Your task to perform on an android device: Open network settings Image 0: 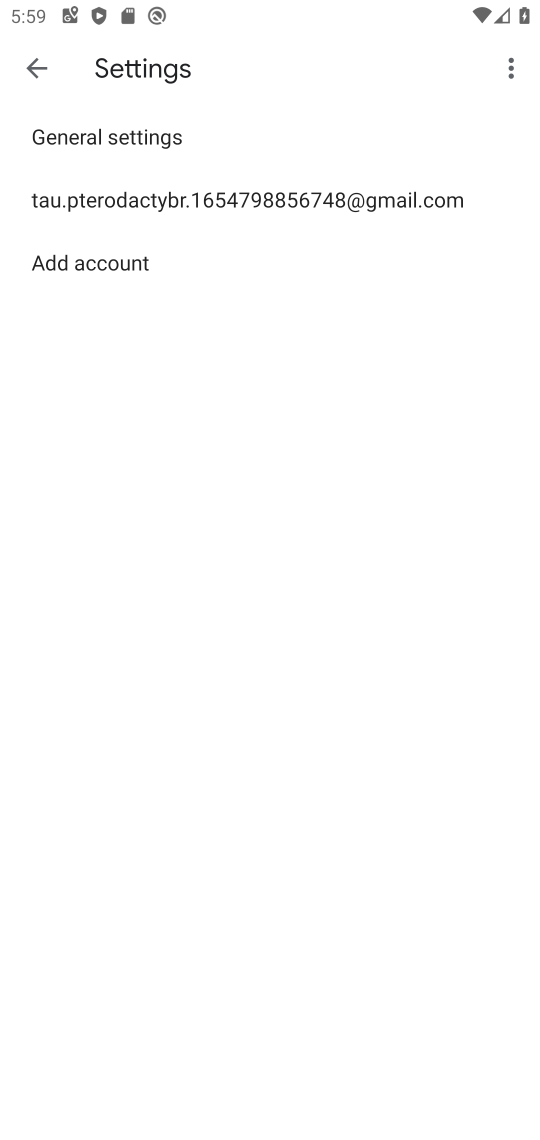
Step 0: press home button
Your task to perform on an android device: Open network settings Image 1: 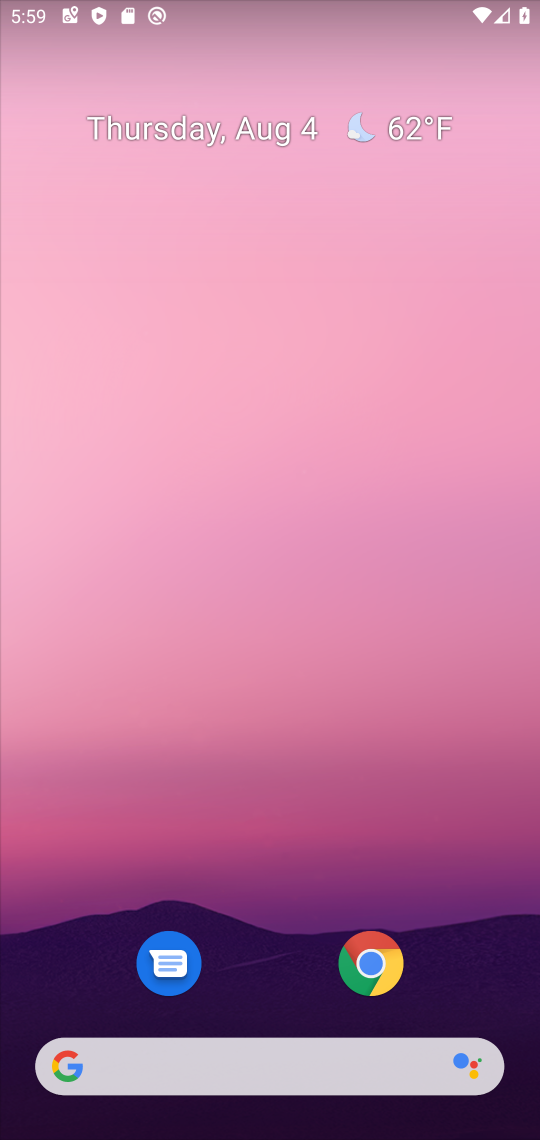
Step 1: drag from (298, 881) to (226, 12)
Your task to perform on an android device: Open network settings Image 2: 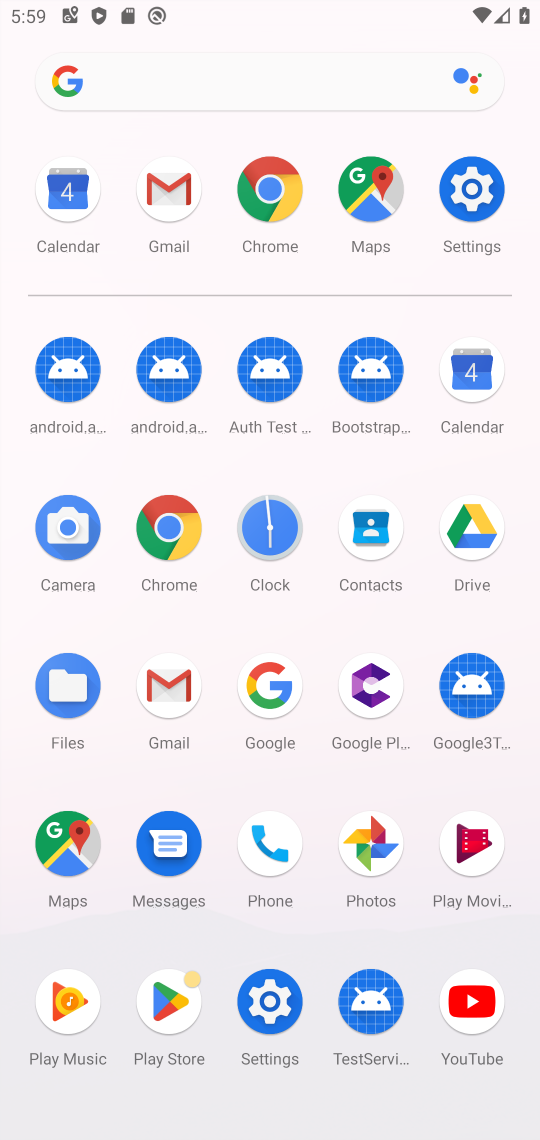
Step 2: click (470, 195)
Your task to perform on an android device: Open network settings Image 3: 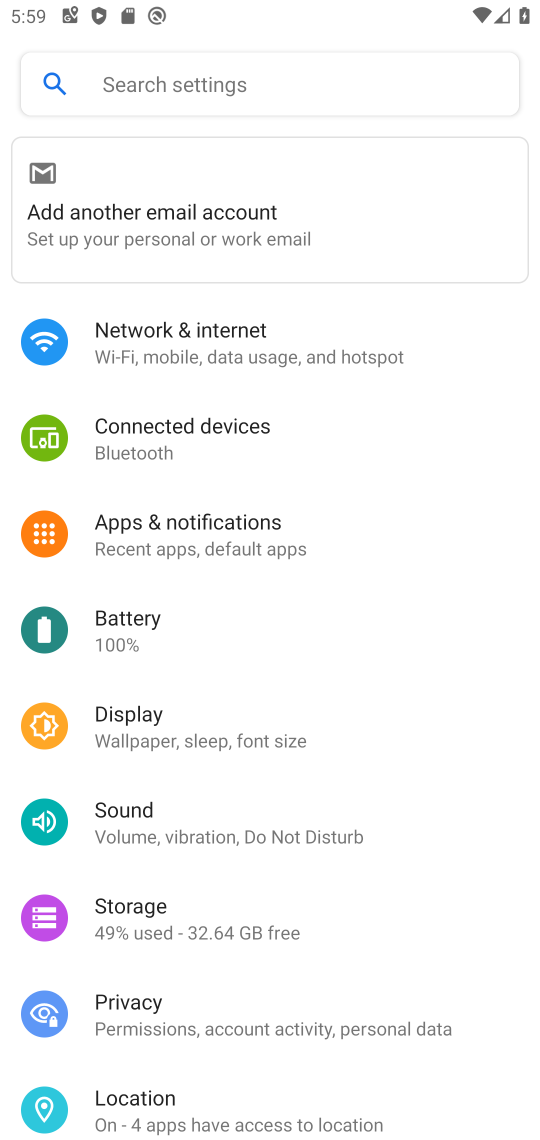
Step 3: click (182, 322)
Your task to perform on an android device: Open network settings Image 4: 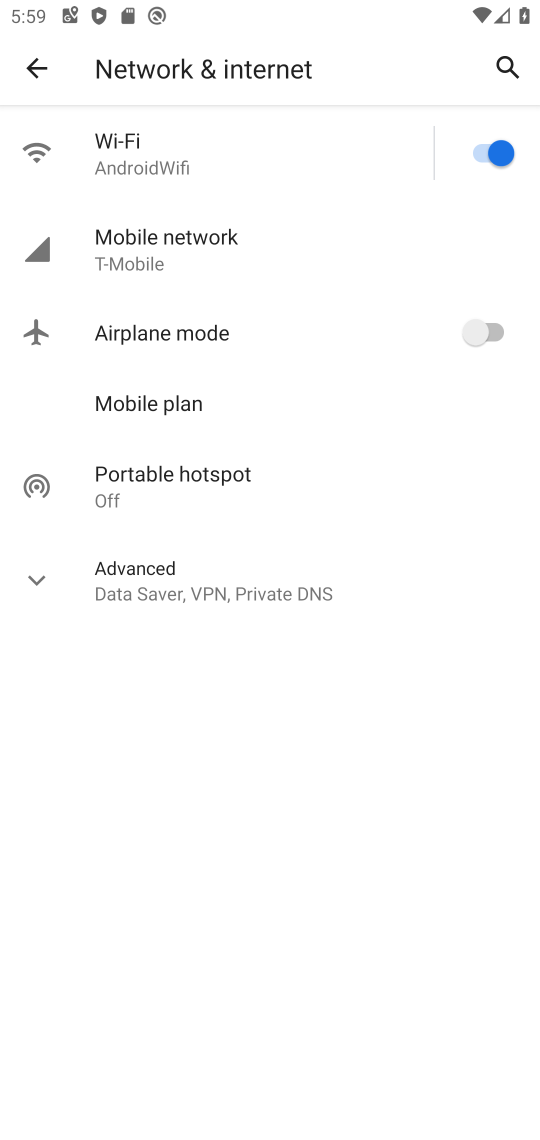
Step 4: task complete